Your task to perform on an android device: change text size in settings app Image 0: 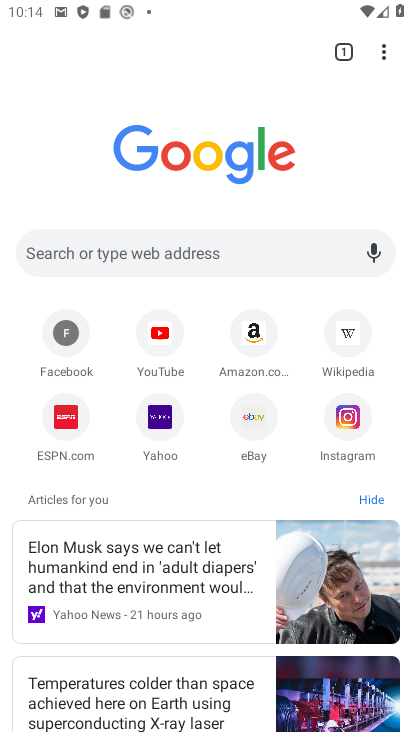
Step 0: press home button
Your task to perform on an android device: change text size in settings app Image 1: 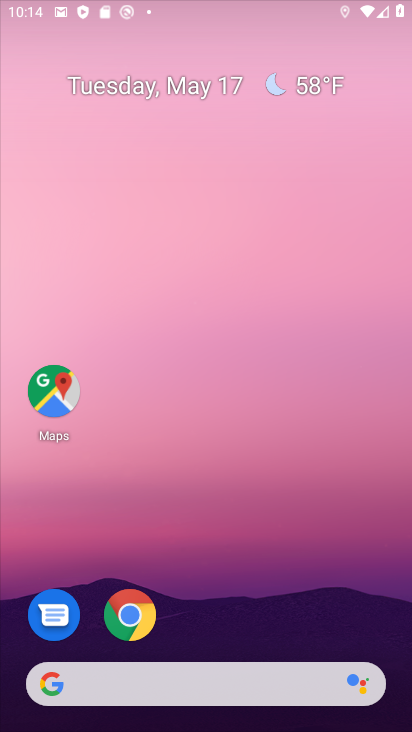
Step 1: drag from (207, 595) to (219, 190)
Your task to perform on an android device: change text size in settings app Image 2: 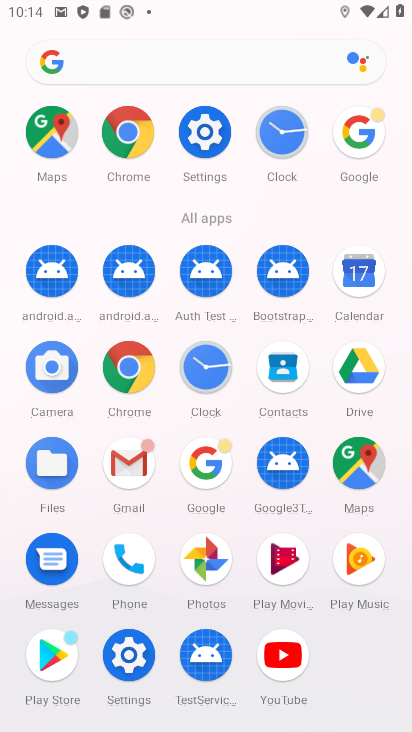
Step 2: click (202, 158)
Your task to perform on an android device: change text size in settings app Image 3: 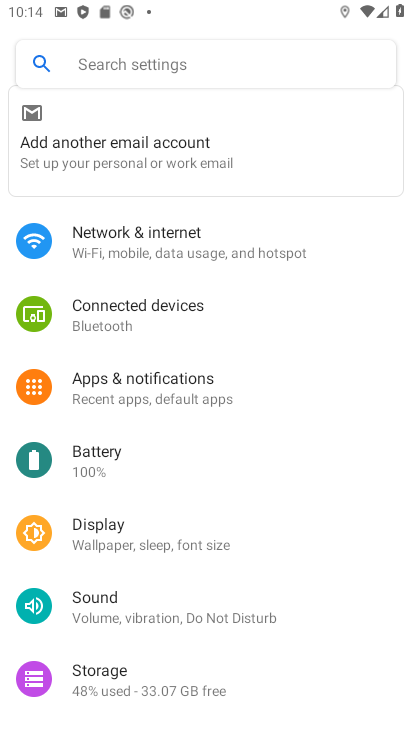
Step 3: click (150, 525)
Your task to perform on an android device: change text size in settings app Image 4: 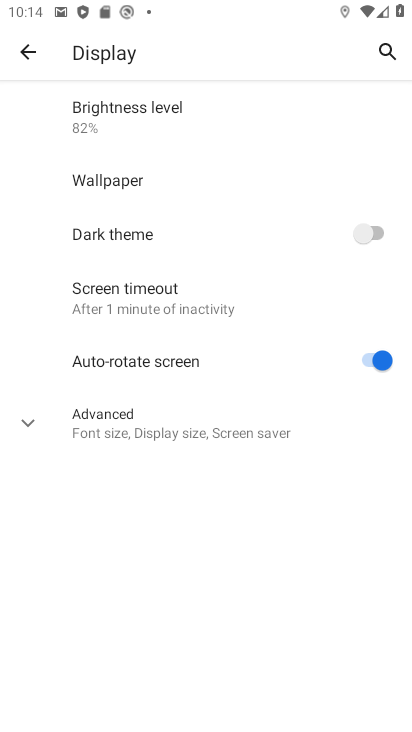
Step 4: click (142, 415)
Your task to perform on an android device: change text size in settings app Image 5: 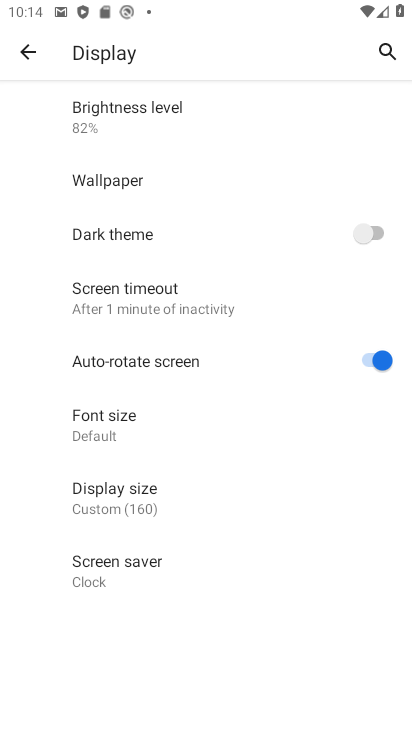
Step 5: click (75, 428)
Your task to perform on an android device: change text size in settings app Image 6: 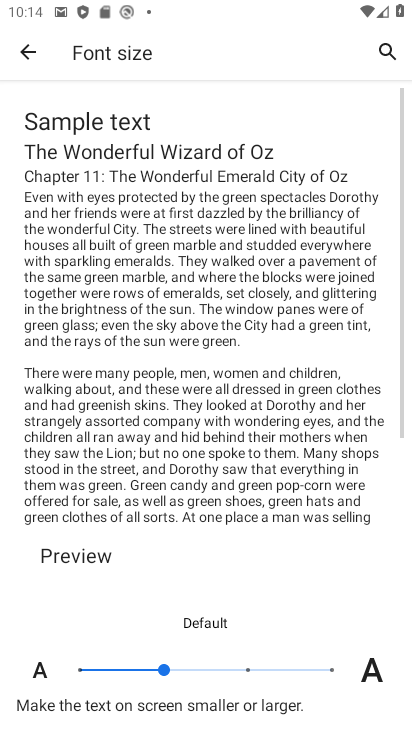
Step 6: click (85, 665)
Your task to perform on an android device: change text size in settings app Image 7: 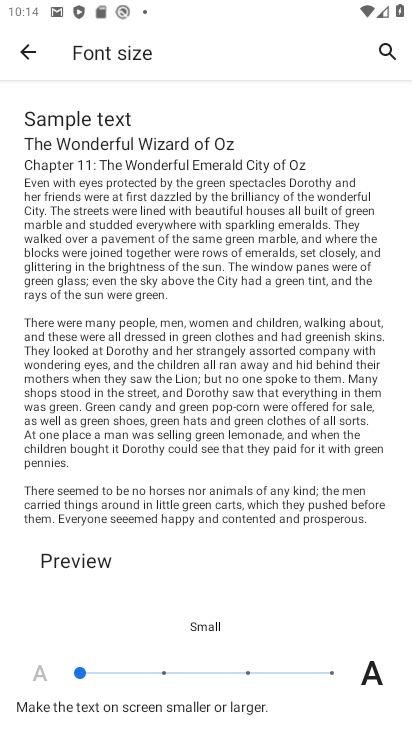
Step 7: task complete